Your task to perform on an android device: delete browsing data in the chrome app Image 0: 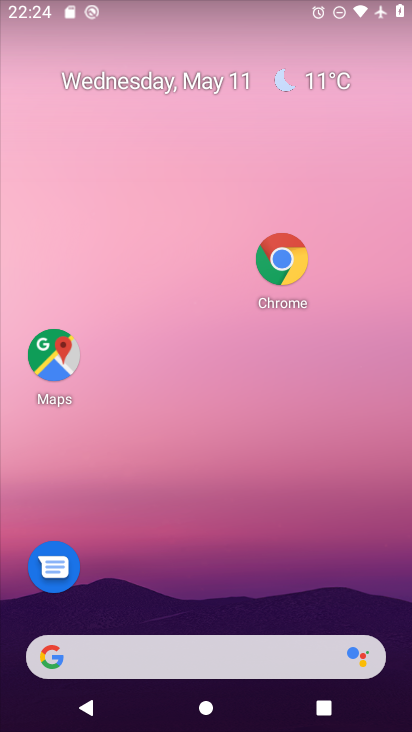
Step 0: drag from (245, 312) to (309, 105)
Your task to perform on an android device: delete browsing data in the chrome app Image 1: 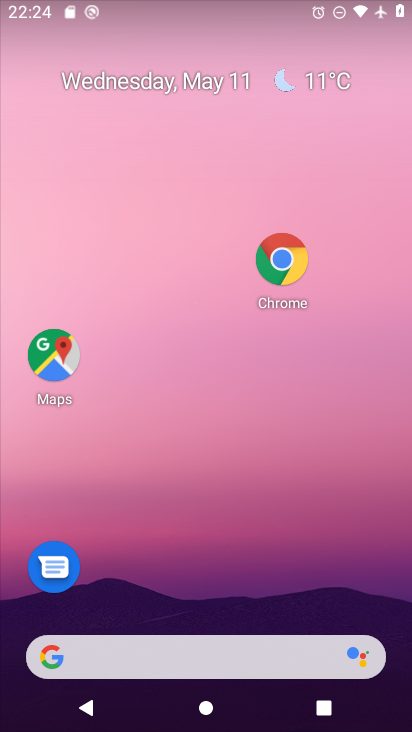
Step 1: click (285, 270)
Your task to perform on an android device: delete browsing data in the chrome app Image 2: 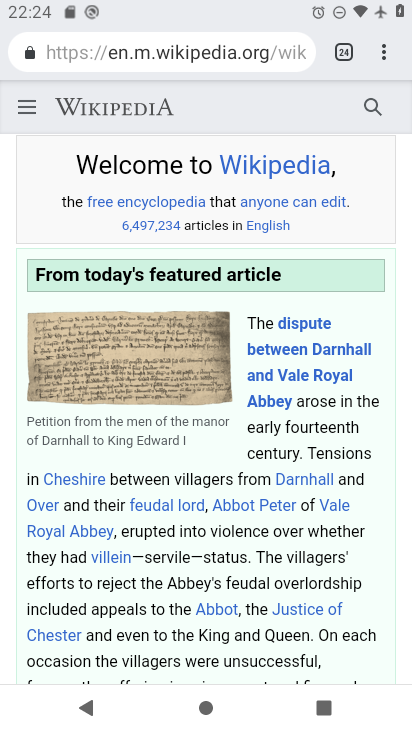
Step 2: drag from (383, 57) to (224, 601)
Your task to perform on an android device: delete browsing data in the chrome app Image 3: 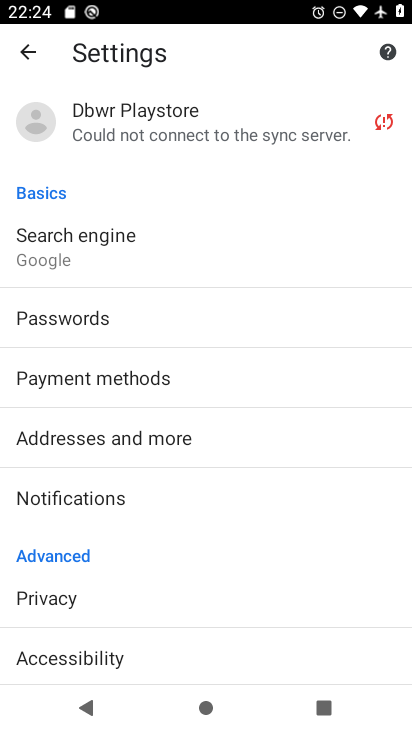
Step 3: click (58, 601)
Your task to perform on an android device: delete browsing data in the chrome app Image 4: 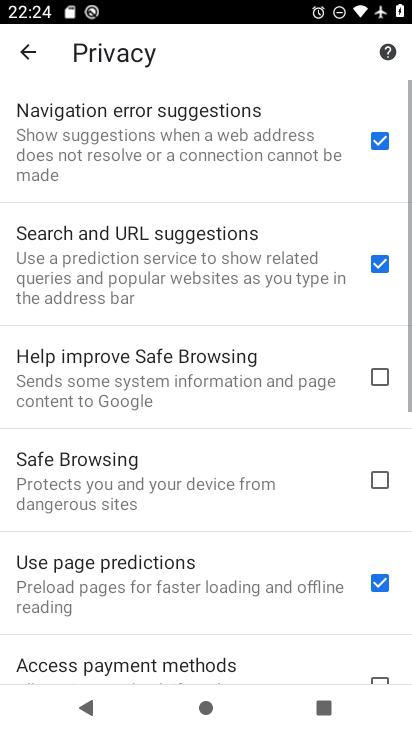
Step 4: drag from (226, 564) to (383, 0)
Your task to perform on an android device: delete browsing data in the chrome app Image 5: 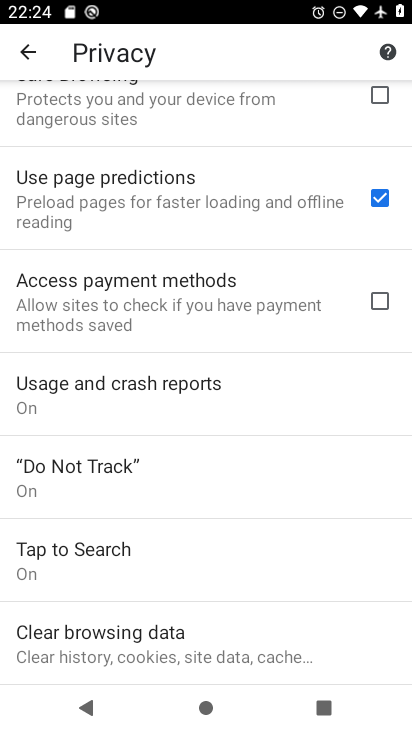
Step 5: click (135, 645)
Your task to perform on an android device: delete browsing data in the chrome app Image 6: 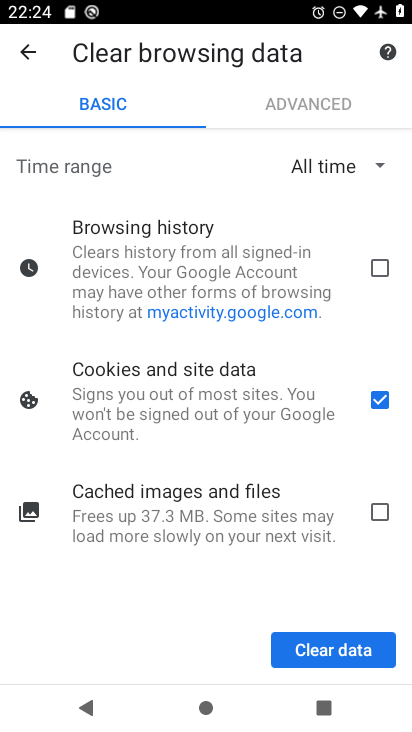
Step 6: click (381, 271)
Your task to perform on an android device: delete browsing data in the chrome app Image 7: 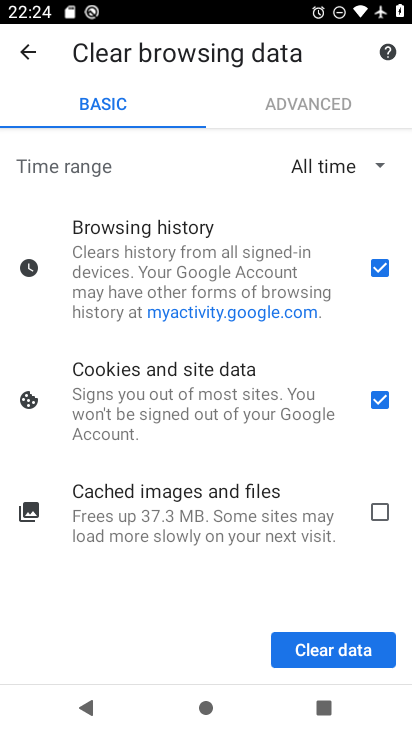
Step 7: click (375, 518)
Your task to perform on an android device: delete browsing data in the chrome app Image 8: 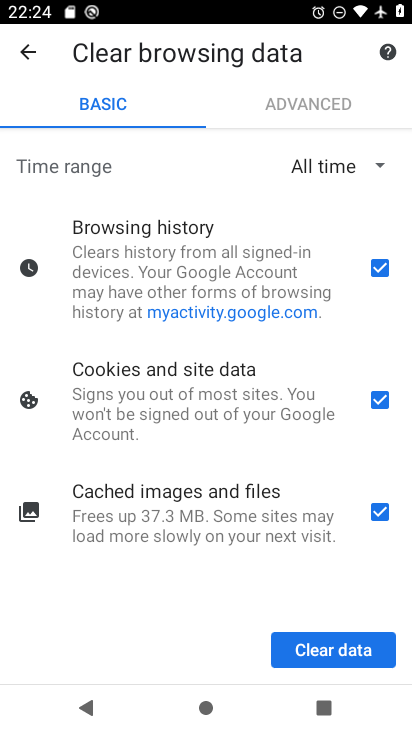
Step 8: click (336, 659)
Your task to perform on an android device: delete browsing data in the chrome app Image 9: 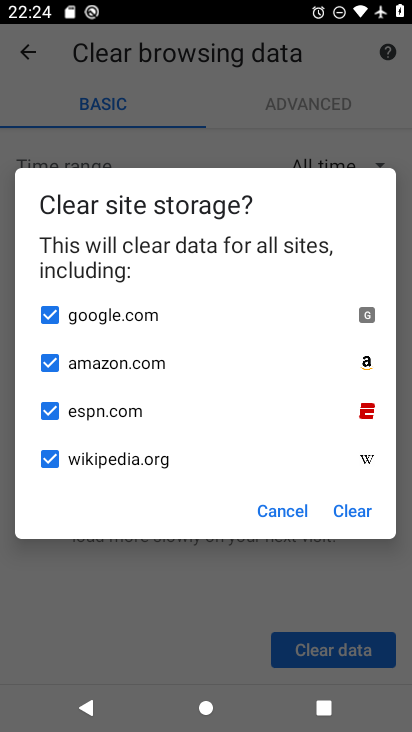
Step 9: click (358, 508)
Your task to perform on an android device: delete browsing data in the chrome app Image 10: 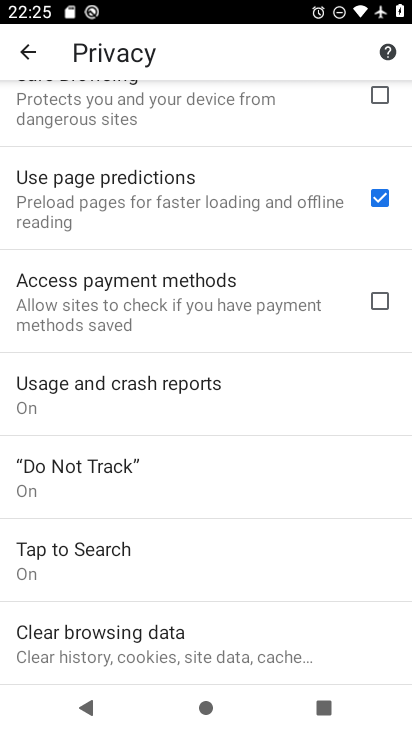
Step 10: task complete